Your task to perform on an android device: Open Chrome and go to the settings page Image 0: 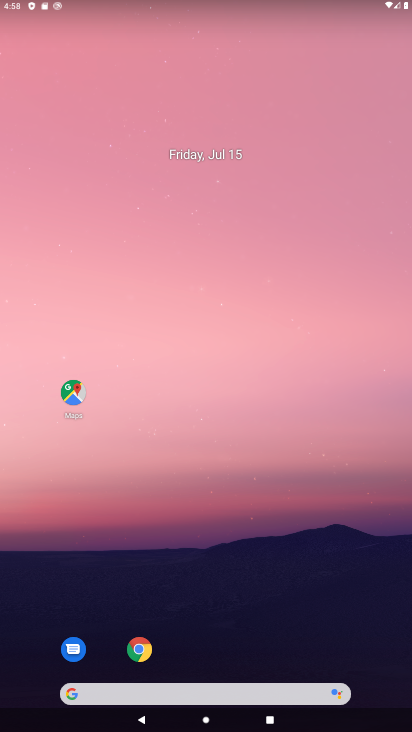
Step 0: click (140, 651)
Your task to perform on an android device: Open Chrome and go to the settings page Image 1: 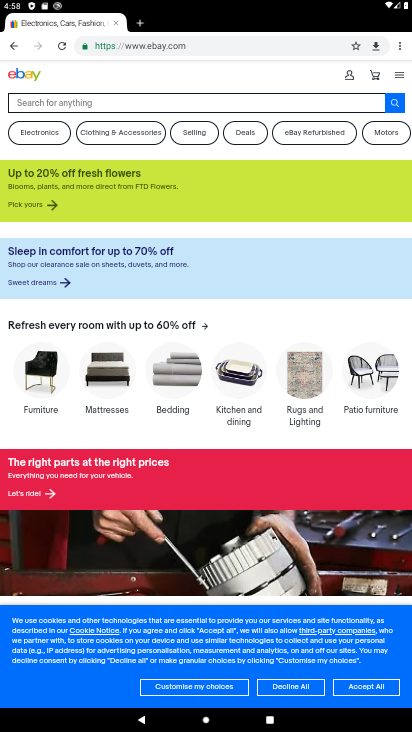
Step 1: click (399, 44)
Your task to perform on an android device: Open Chrome and go to the settings page Image 2: 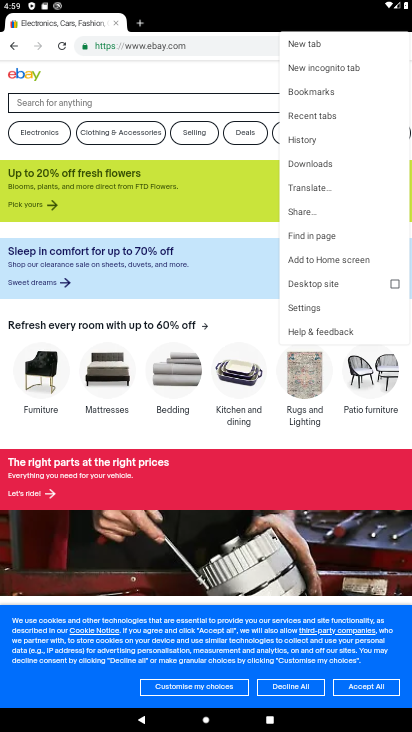
Step 2: click (308, 305)
Your task to perform on an android device: Open Chrome and go to the settings page Image 3: 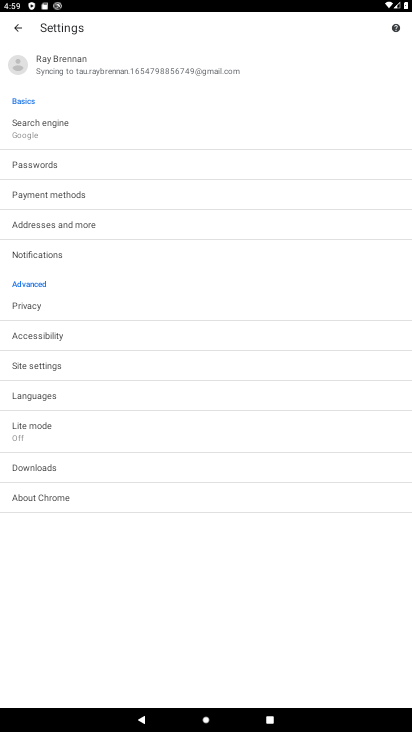
Step 3: task complete